Your task to perform on an android device: Open Chrome and go to settings Image 0: 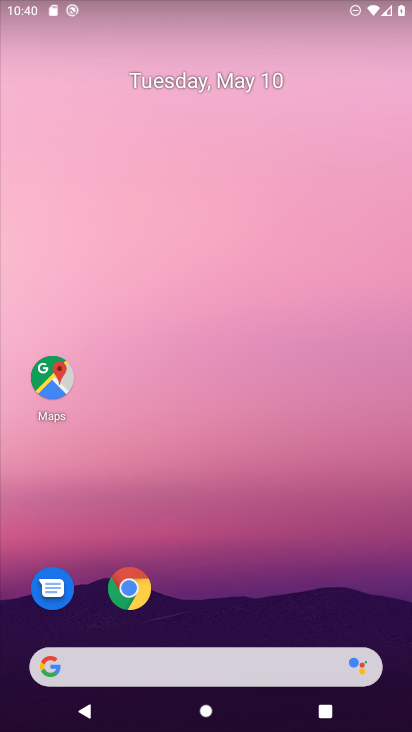
Step 0: click (149, 602)
Your task to perform on an android device: Open Chrome and go to settings Image 1: 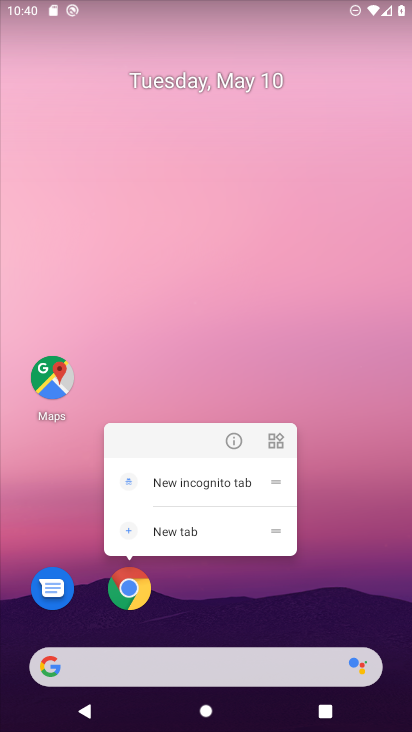
Step 1: click (149, 602)
Your task to perform on an android device: Open Chrome and go to settings Image 2: 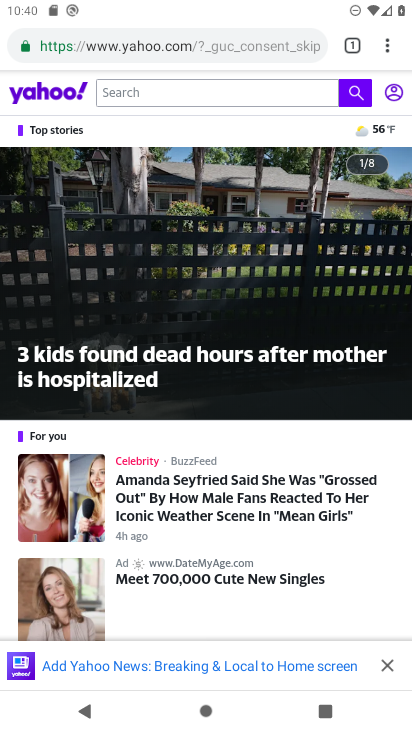
Step 2: task complete